Your task to perform on an android device: Empty the shopping cart on ebay. Image 0: 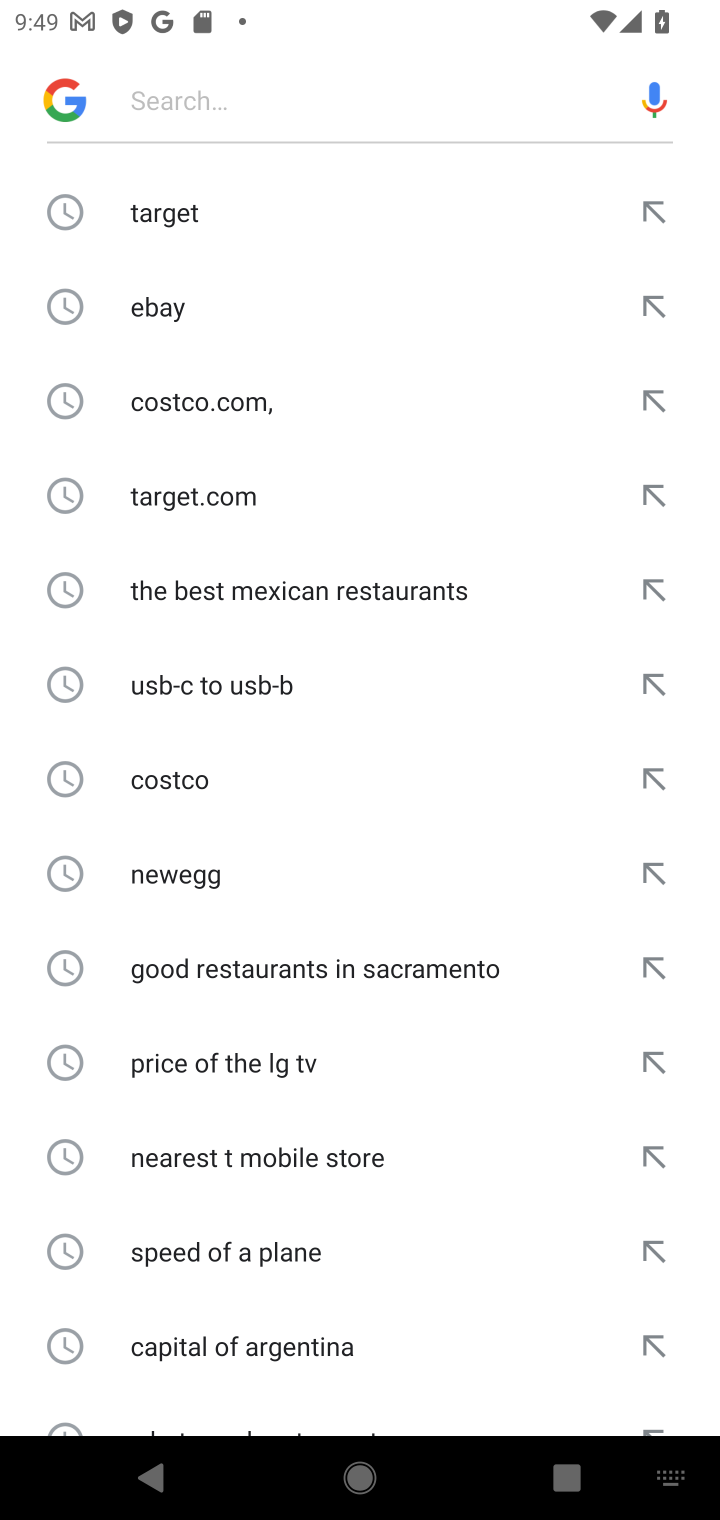
Step 0: type "ebay"
Your task to perform on an android device: Empty the shopping cart on ebay. Image 1: 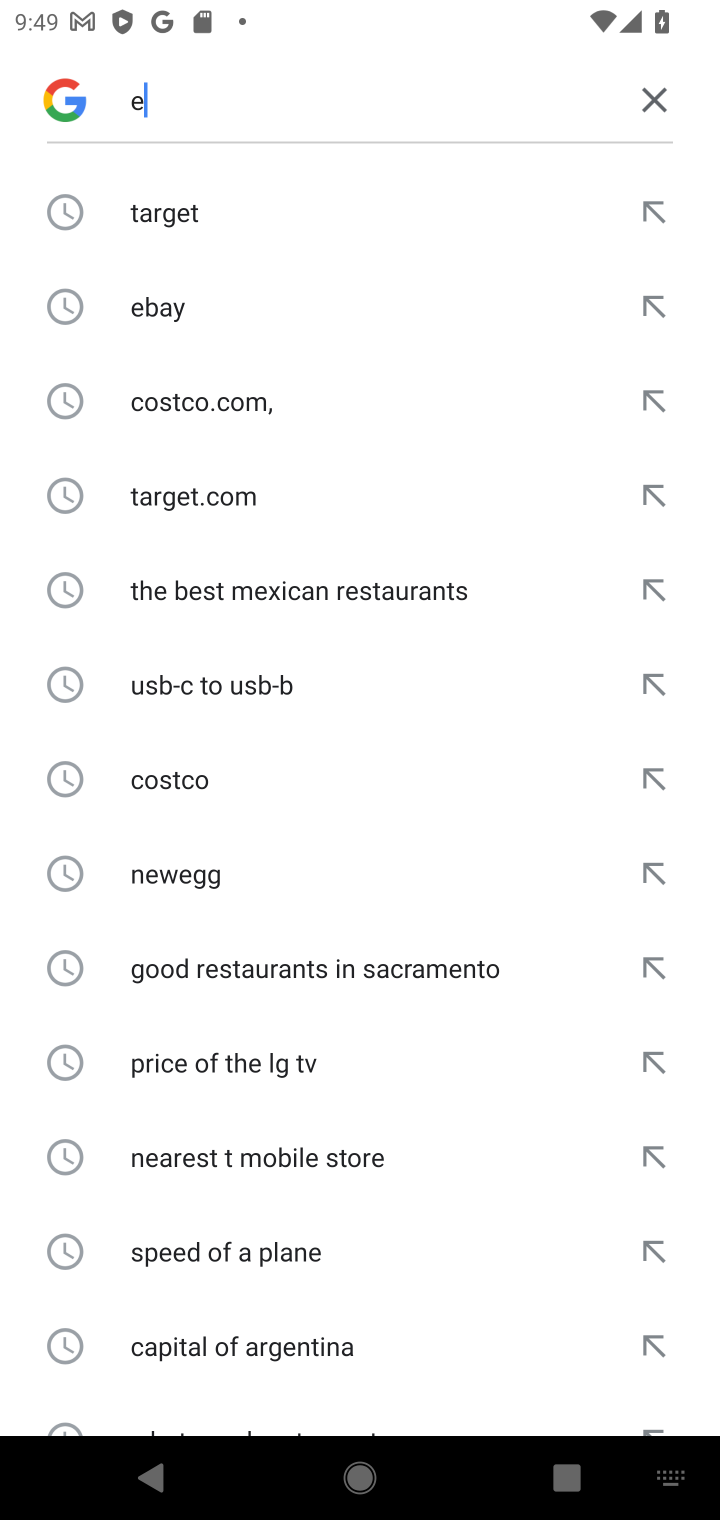
Step 1: type ""
Your task to perform on an android device: Empty the shopping cart on ebay. Image 2: 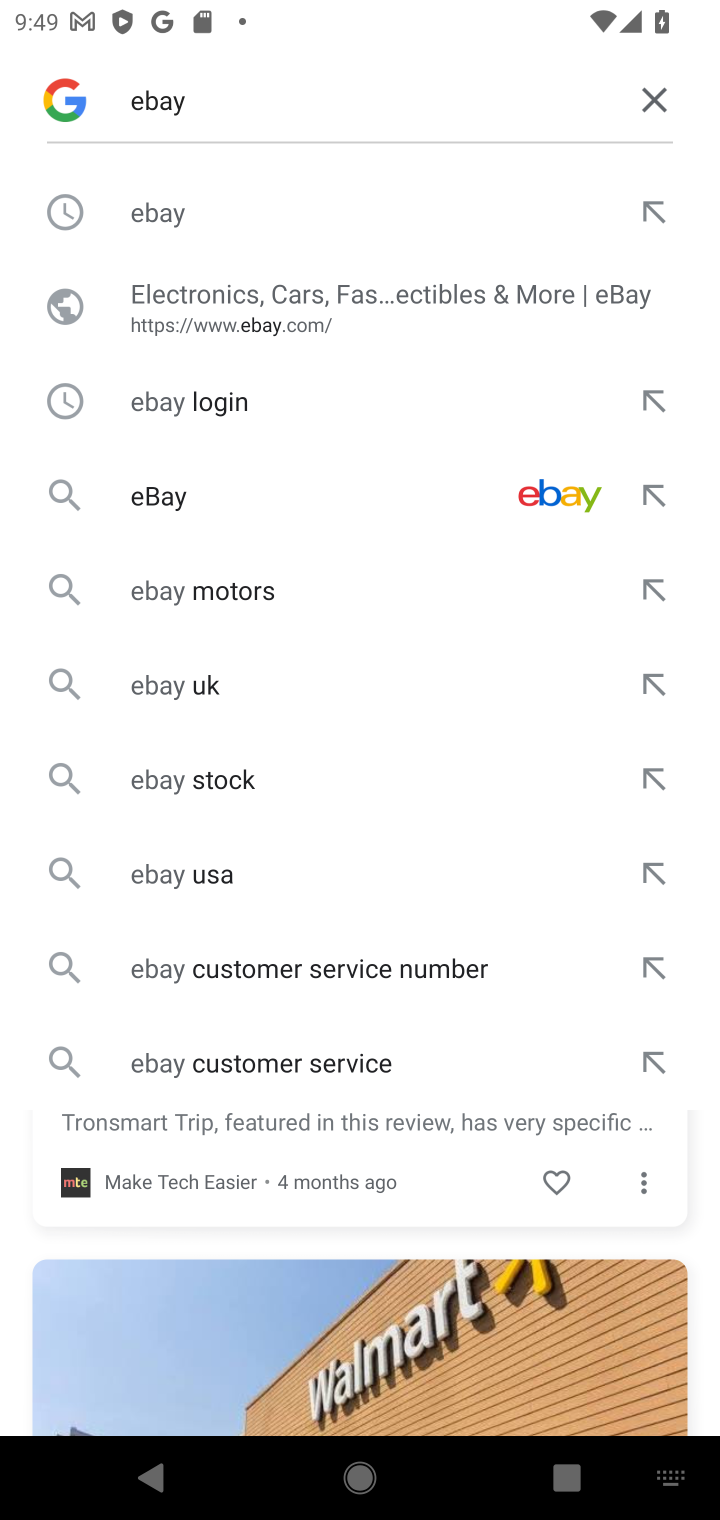
Step 2: click (213, 517)
Your task to perform on an android device: Empty the shopping cart on ebay. Image 3: 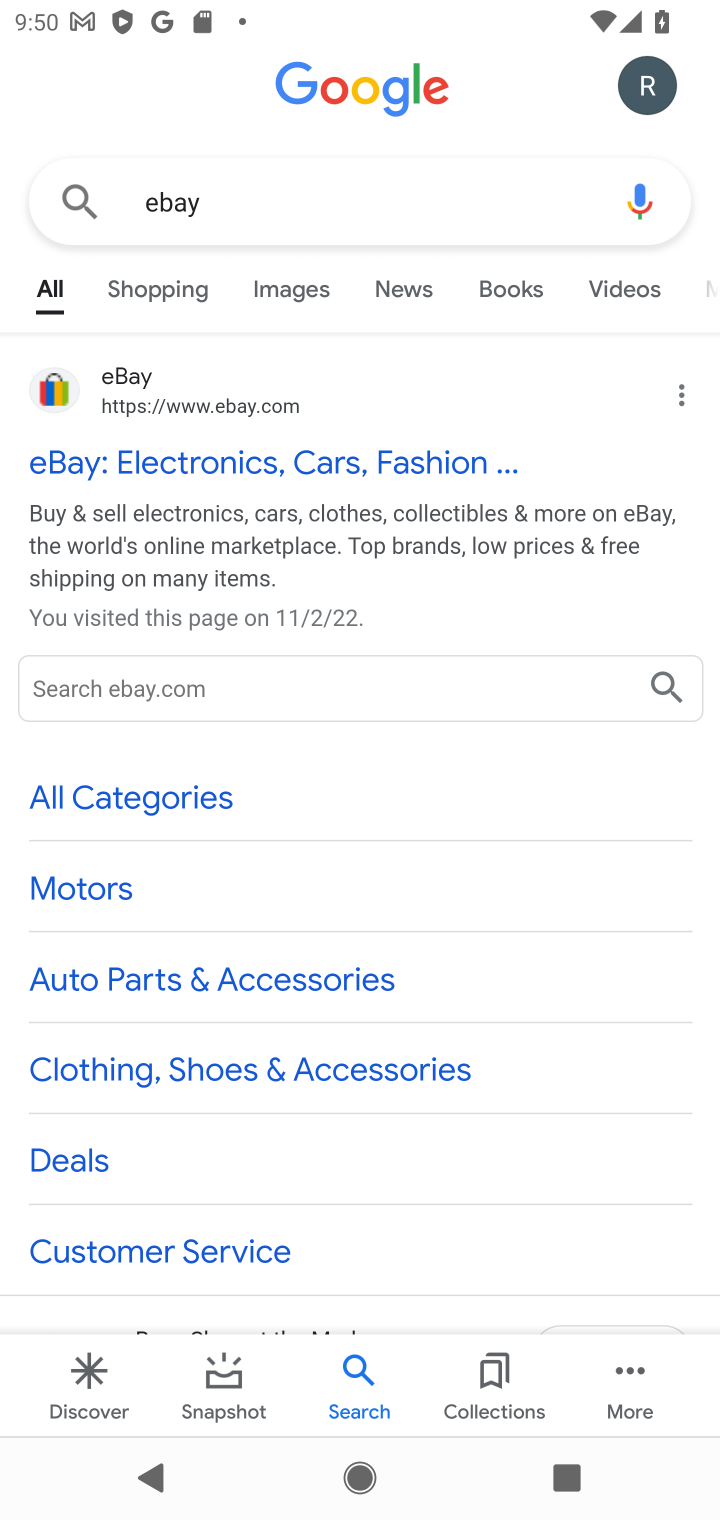
Step 3: click (230, 460)
Your task to perform on an android device: Empty the shopping cart on ebay. Image 4: 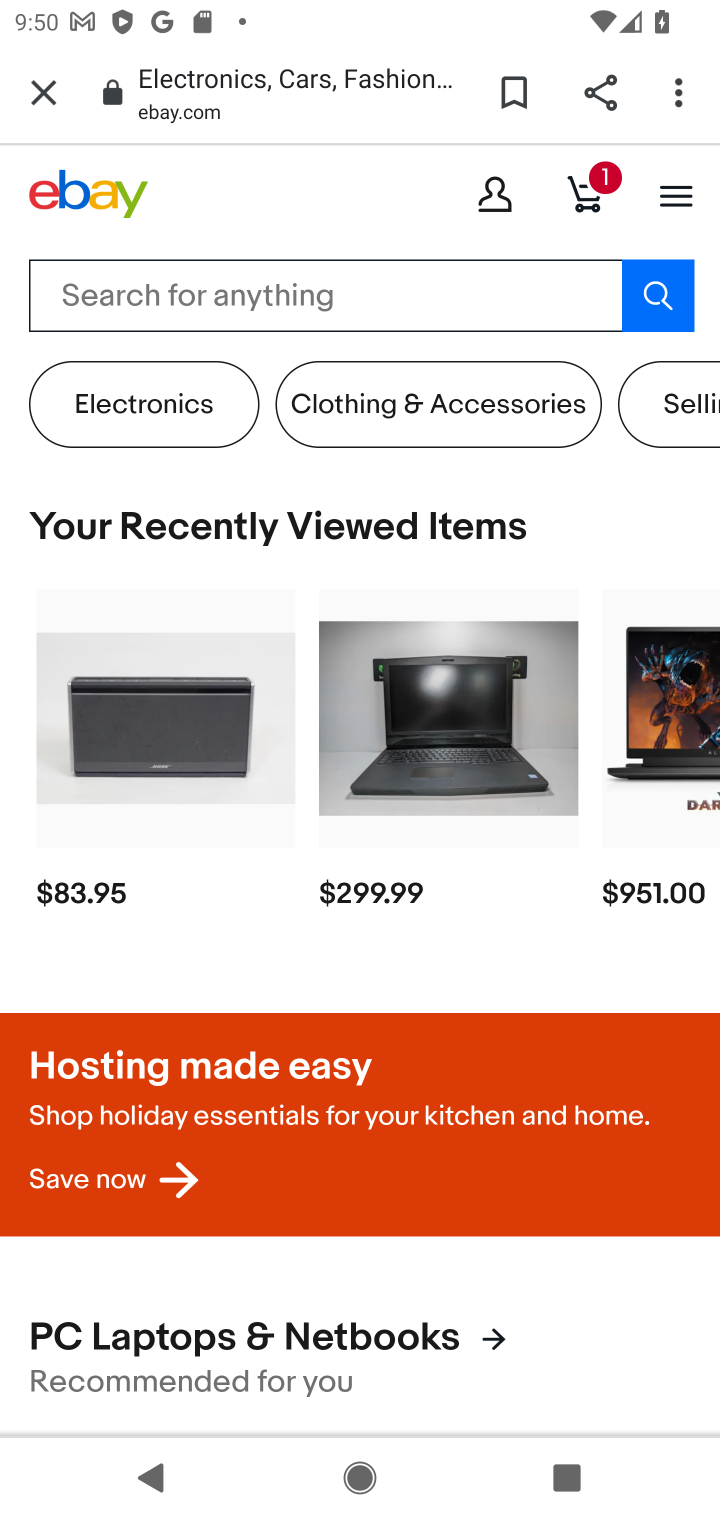
Step 4: click (589, 179)
Your task to perform on an android device: Empty the shopping cart on ebay. Image 5: 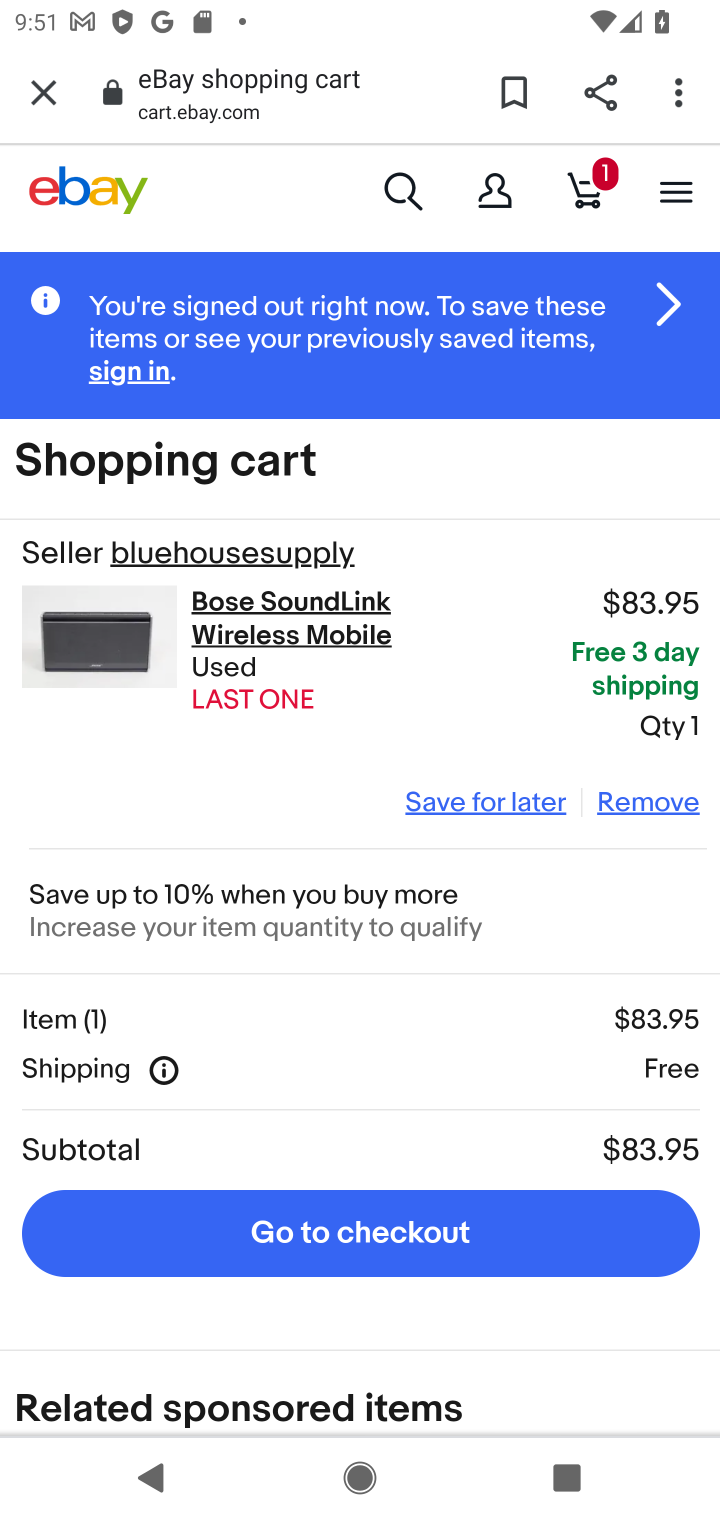
Step 5: click (601, 169)
Your task to perform on an android device: Empty the shopping cart on ebay. Image 6: 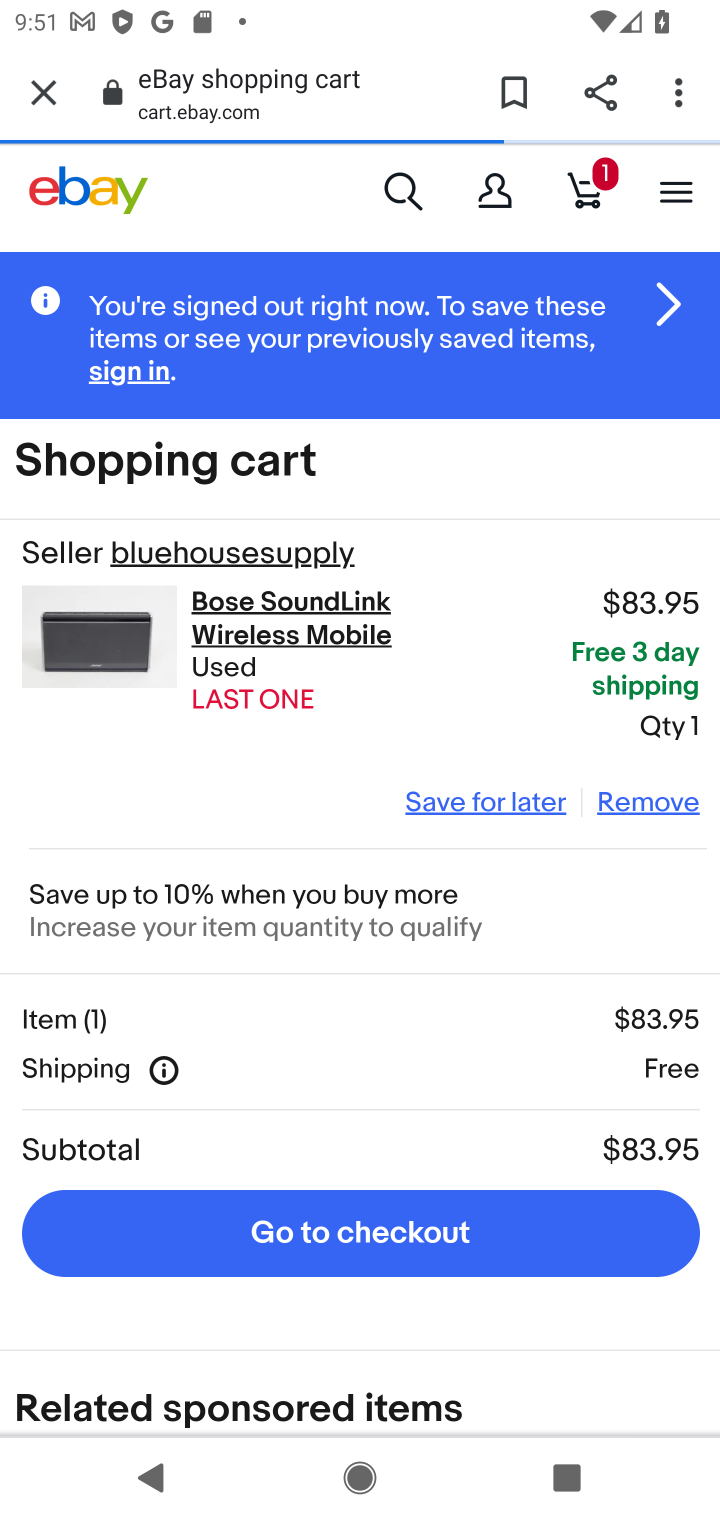
Step 6: click (673, 811)
Your task to perform on an android device: Empty the shopping cart on ebay. Image 7: 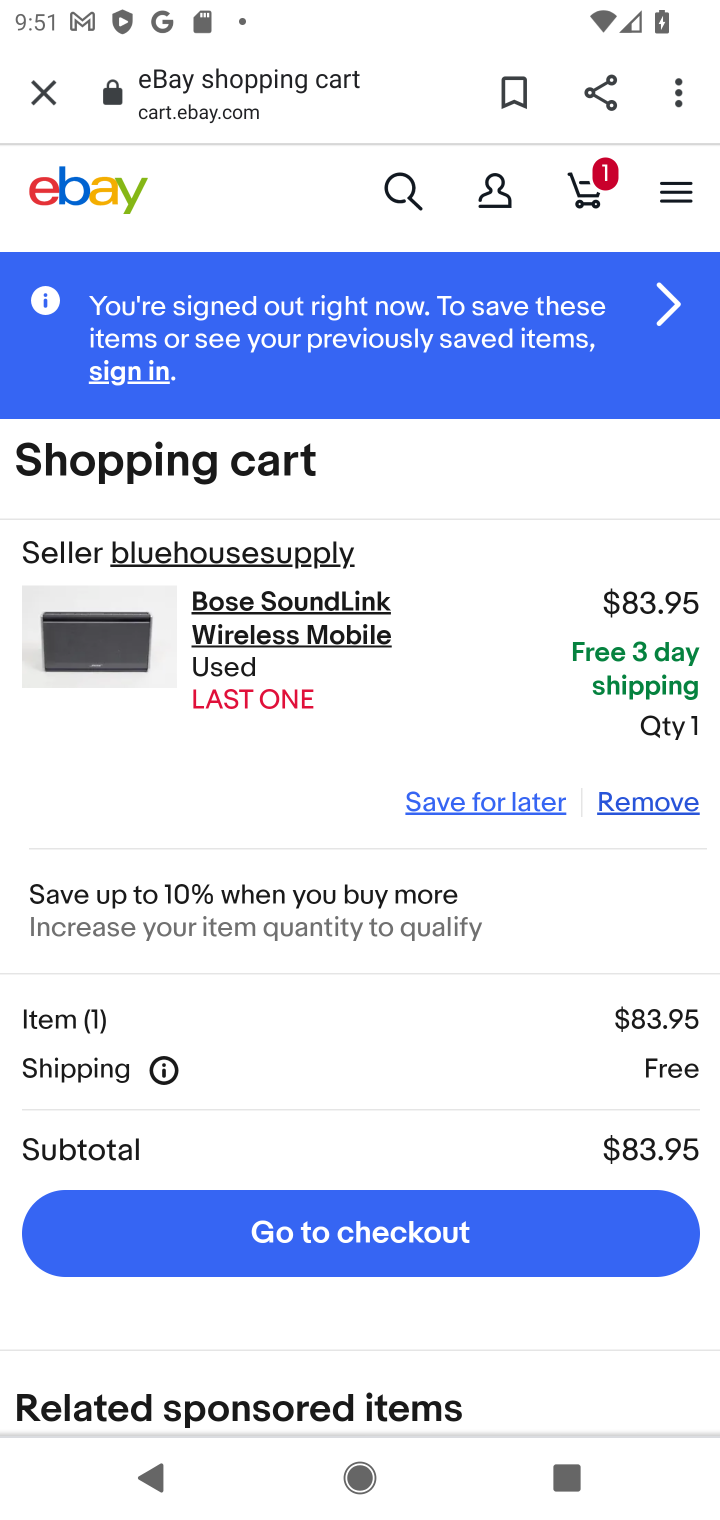
Step 7: click (662, 776)
Your task to perform on an android device: Empty the shopping cart on ebay. Image 8: 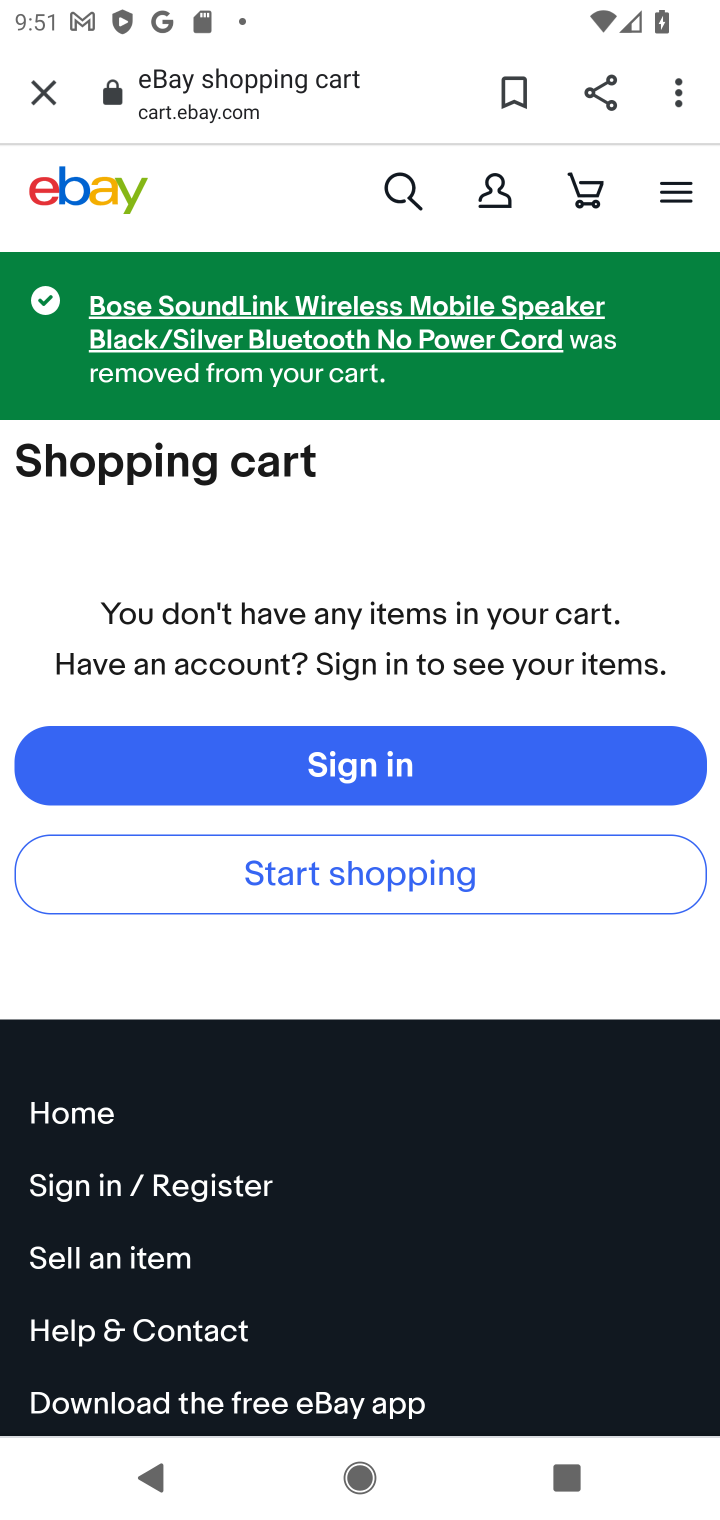
Step 8: click (41, 86)
Your task to perform on an android device: Empty the shopping cart on ebay. Image 9: 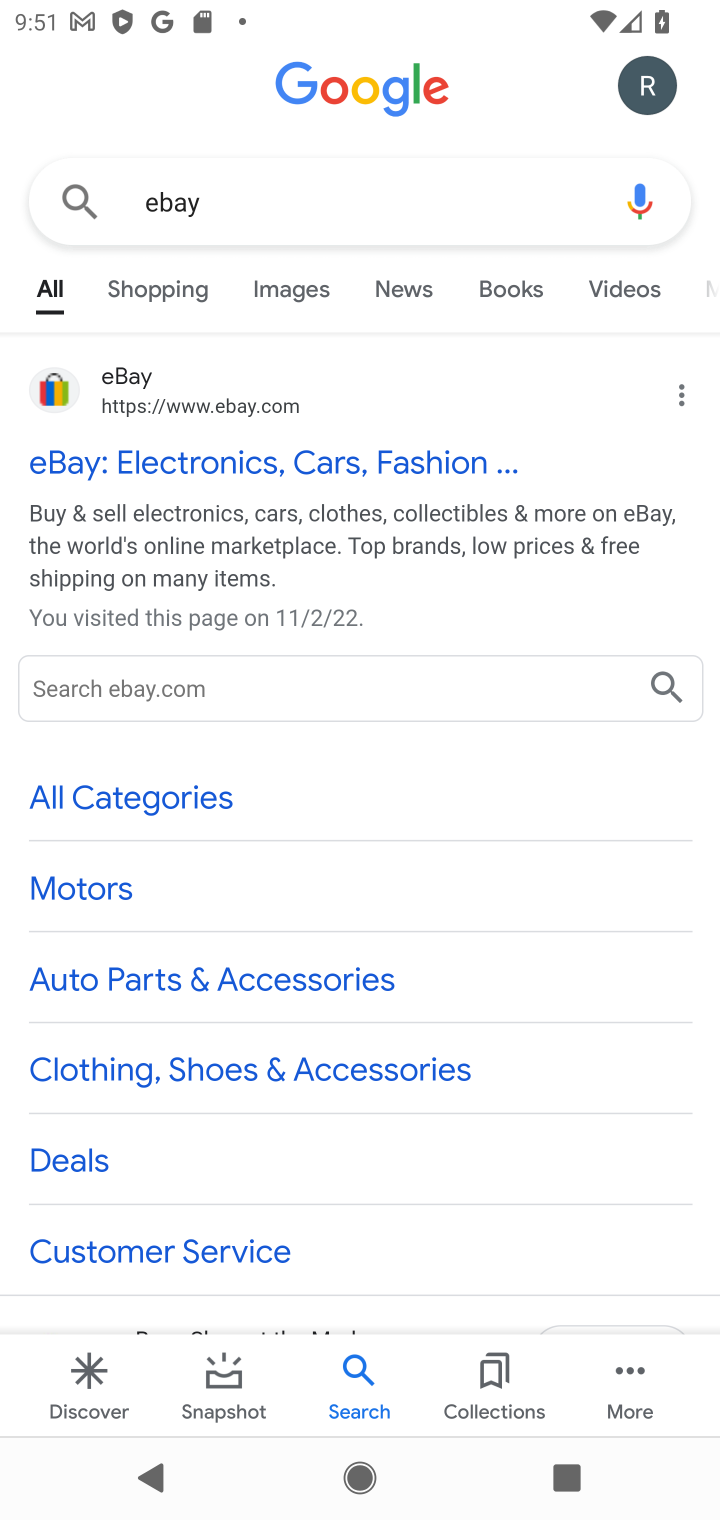
Step 9: click (186, 193)
Your task to perform on an android device: Empty the shopping cart on ebay. Image 10: 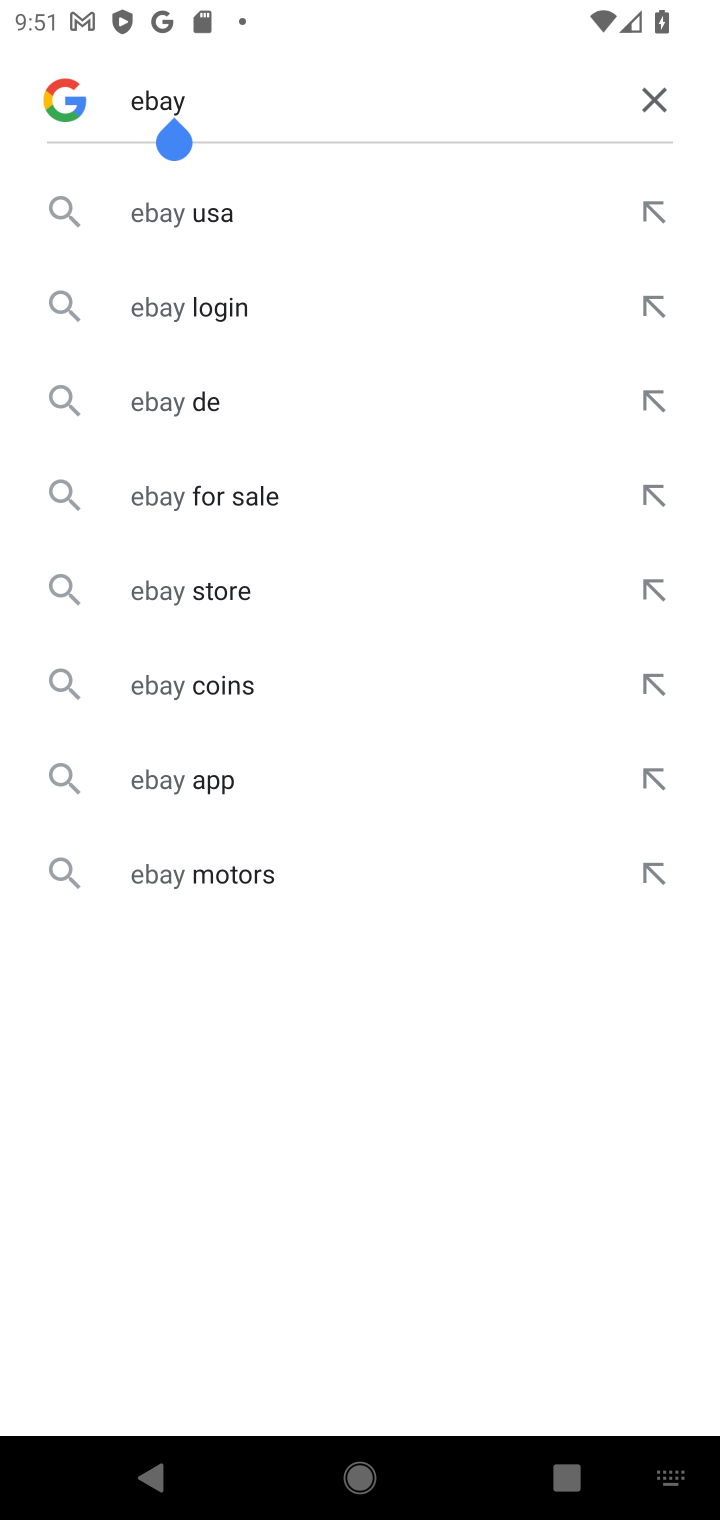
Step 10: task complete